Your task to perform on an android device: Show me recent news Image 0: 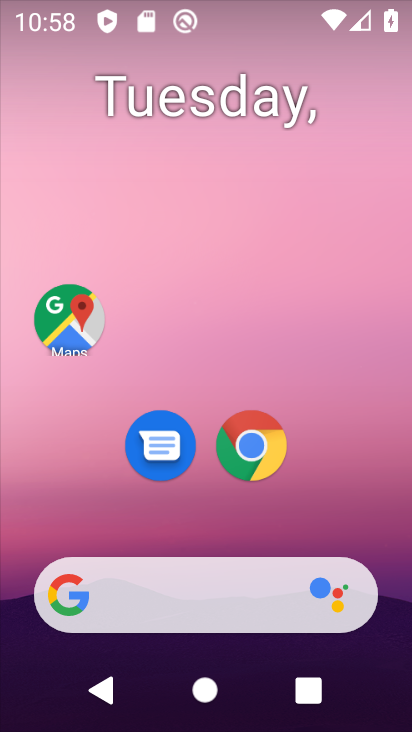
Step 0: drag from (4, 241) to (367, 306)
Your task to perform on an android device: Show me recent news Image 1: 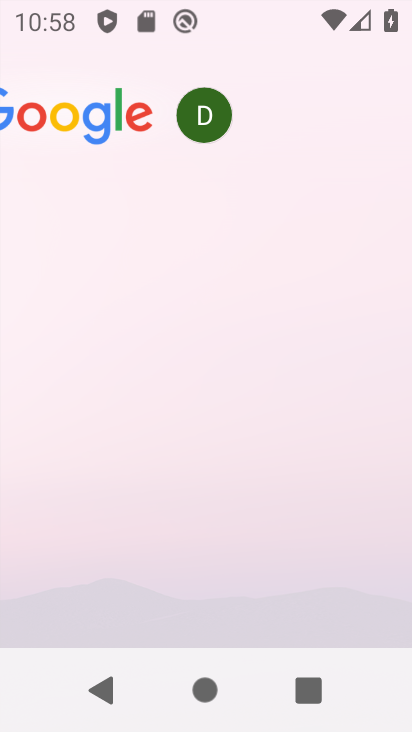
Step 1: task complete